Your task to perform on an android device: Clear the cart on ebay.com. Search for "apple airpods" on ebay.com, select the first entry, and add it to the cart. Image 0: 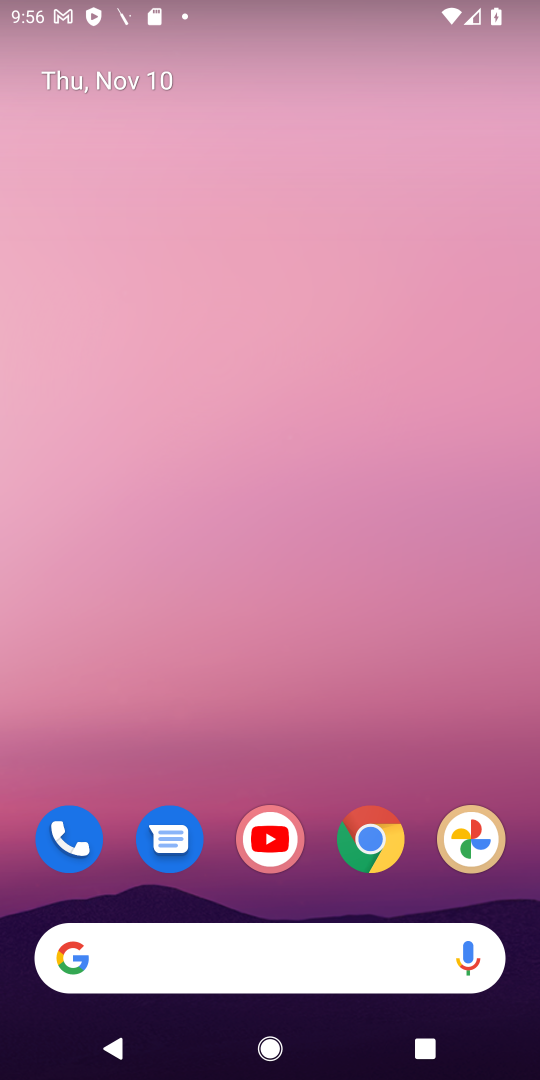
Step 0: click (361, 843)
Your task to perform on an android device: Clear the cart on ebay.com. Search for "apple airpods" on ebay.com, select the first entry, and add it to the cart. Image 1: 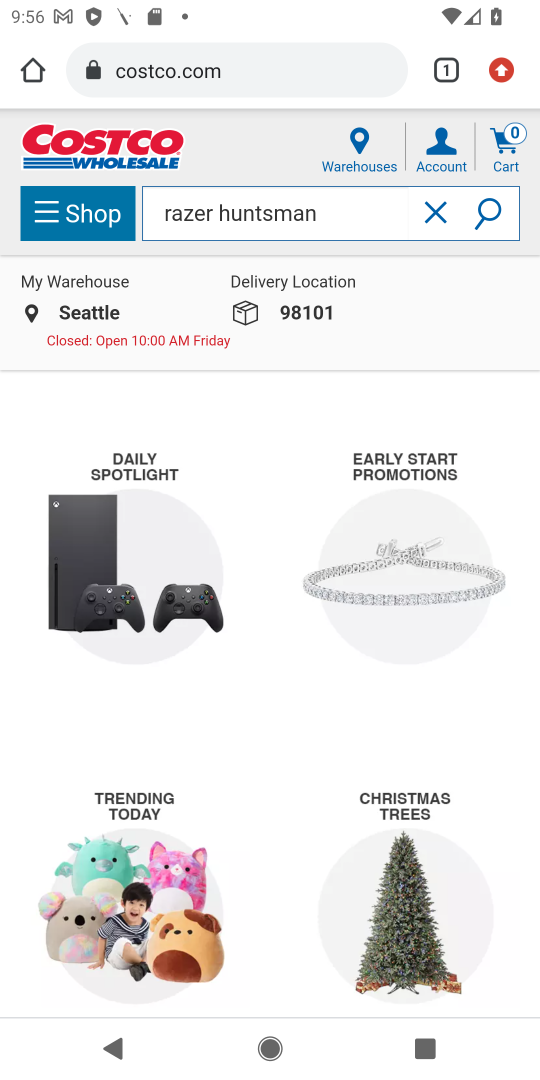
Step 1: click (300, 49)
Your task to perform on an android device: Clear the cart on ebay.com. Search for "apple airpods" on ebay.com, select the first entry, and add it to the cart. Image 2: 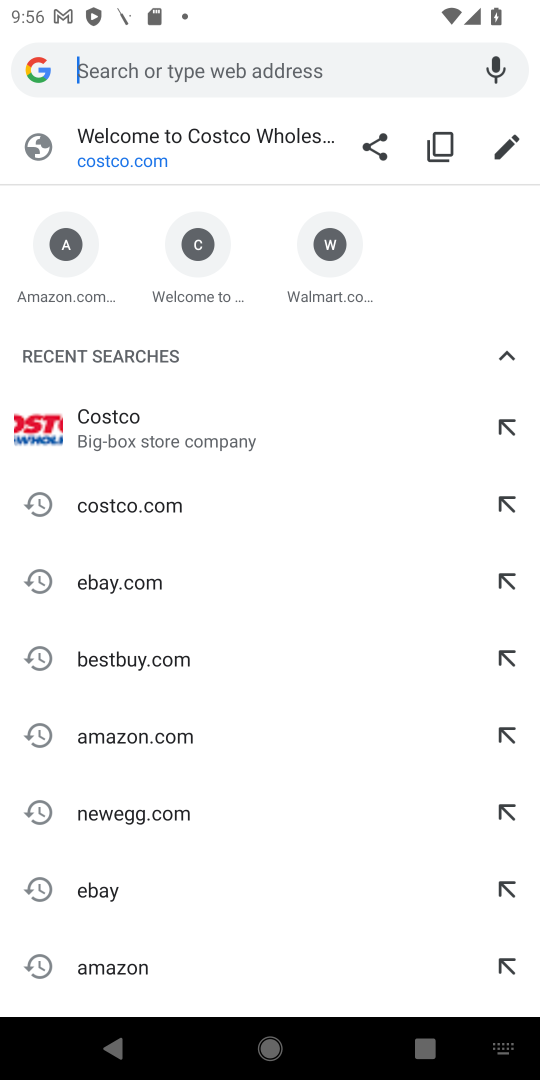
Step 2: type "ebay.com"
Your task to perform on an android device: Clear the cart on ebay.com. Search for "apple airpods" on ebay.com, select the first entry, and add it to the cart. Image 3: 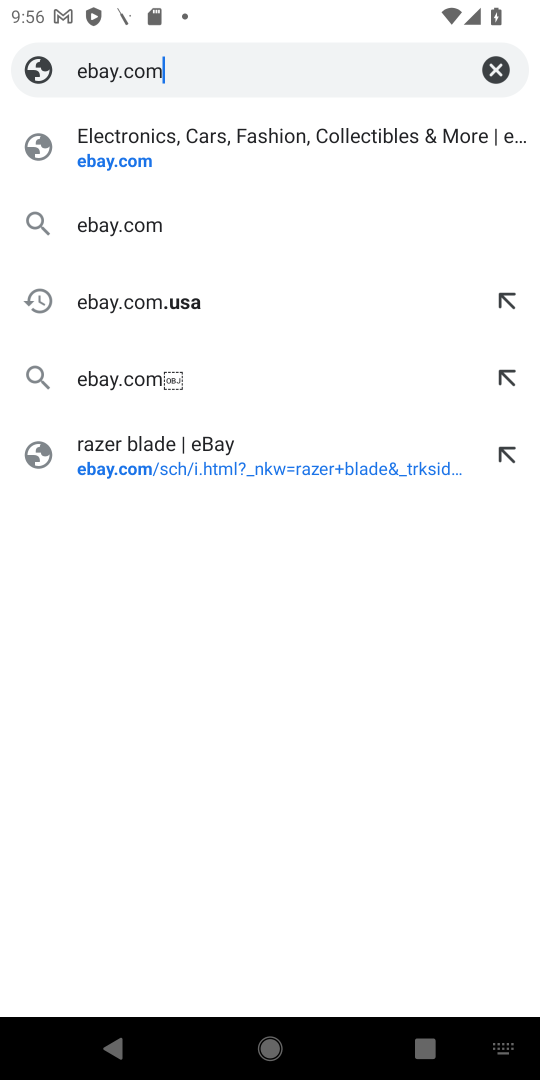
Step 3: click (105, 230)
Your task to perform on an android device: Clear the cart on ebay.com. Search for "apple airpods" on ebay.com, select the first entry, and add it to the cart. Image 4: 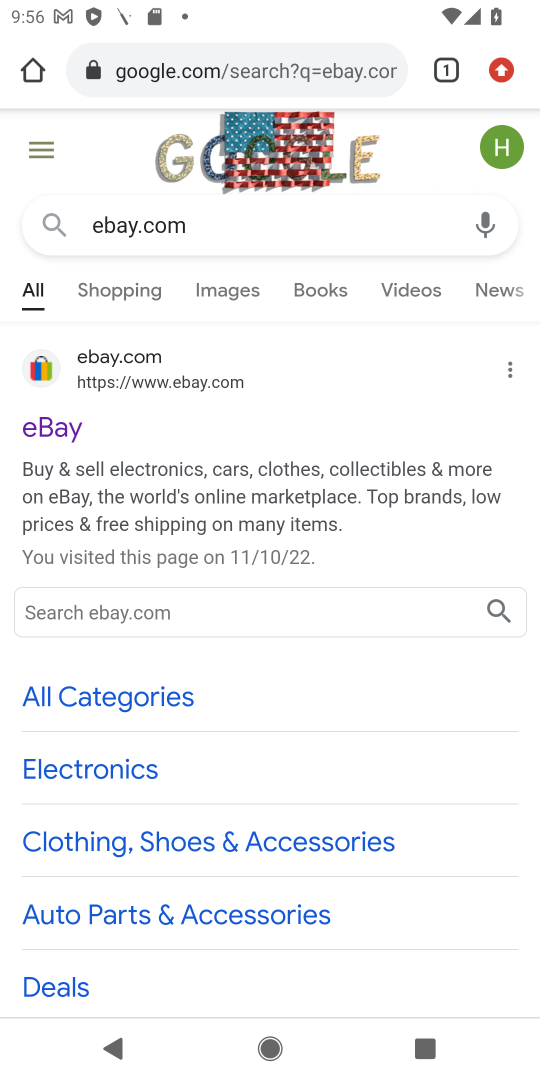
Step 4: click (137, 372)
Your task to perform on an android device: Clear the cart on ebay.com. Search for "apple airpods" on ebay.com, select the first entry, and add it to the cart. Image 5: 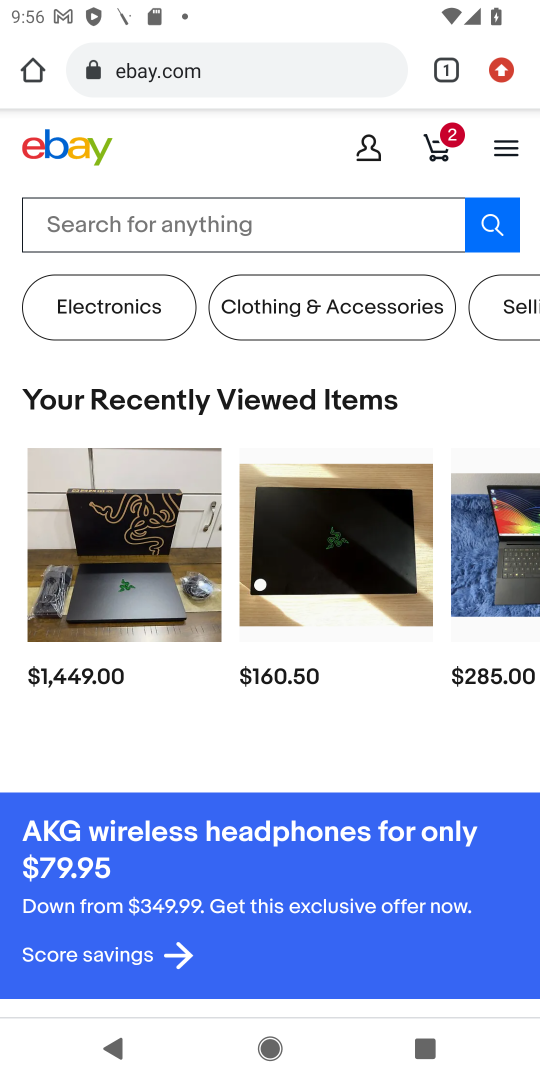
Step 5: click (437, 132)
Your task to perform on an android device: Clear the cart on ebay.com. Search for "apple airpods" on ebay.com, select the first entry, and add it to the cart. Image 6: 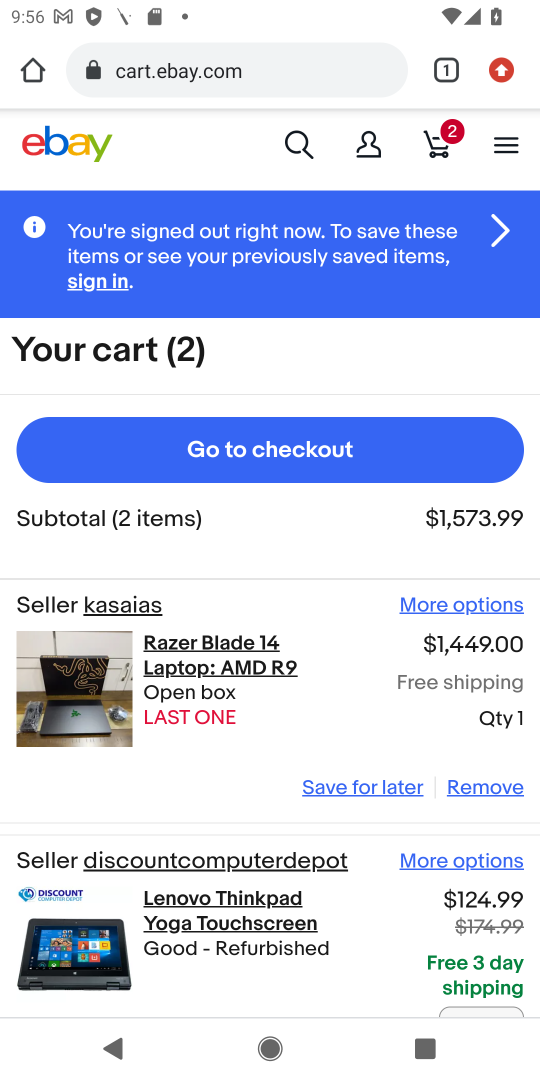
Step 6: click (493, 786)
Your task to perform on an android device: Clear the cart on ebay.com. Search for "apple airpods" on ebay.com, select the first entry, and add it to the cart. Image 7: 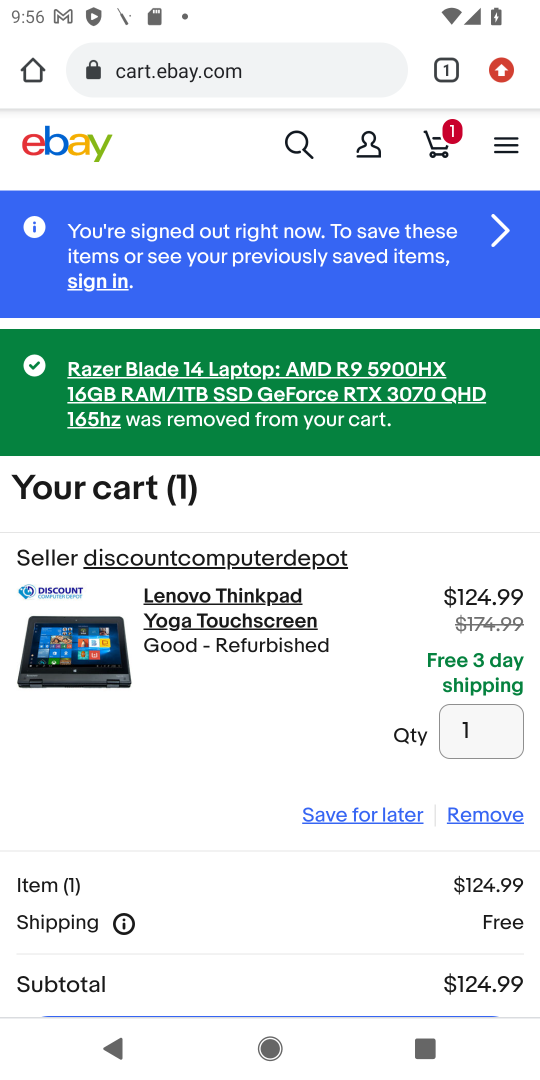
Step 7: click (498, 801)
Your task to perform on an android device: Clear the cart on ebay.com. Search for "apple airpods" on ebay.com, select the first entry, and add it to the cart. Image 8: 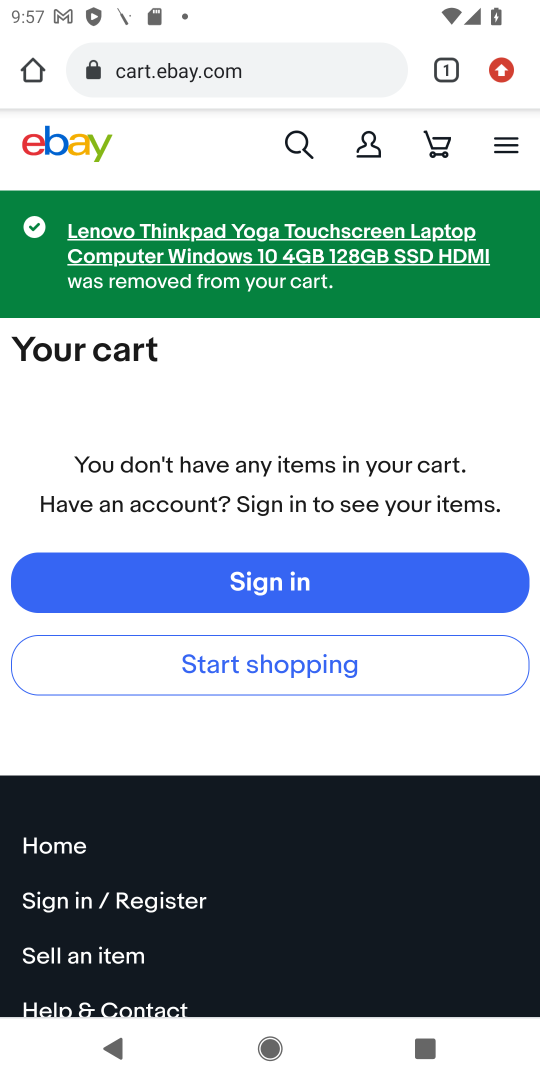
Step 8: click (265, 71)
Your task to perform on an android device: Clear the cart on ebay.com. Search for "apple airpods" on ebay.com, select the first entry, and add it to the cart. Image 9: 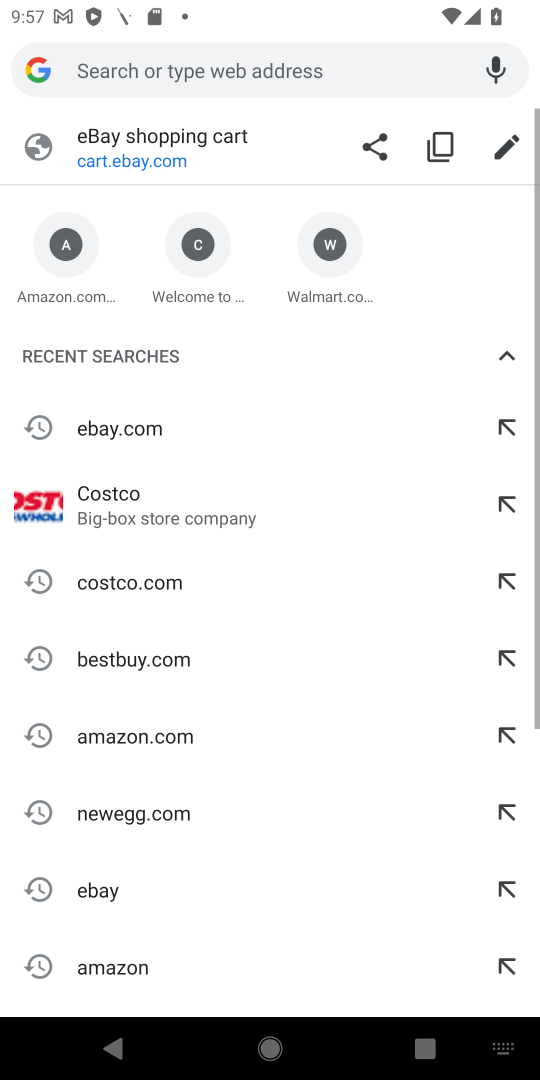
Step 9: press back button
Your task to perform on an android device: Clear the cart on ebay.com. Search for "apple airpods" on ebay.com, select the first entry, and add it to the cart. Image 10: 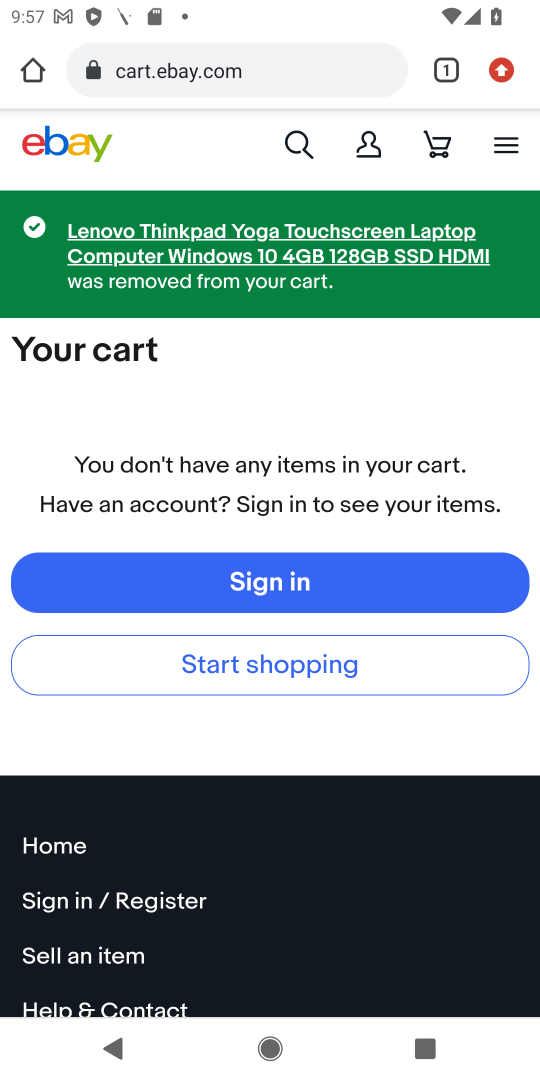
Step 10: click (296, 133)
Your task to perform on an android device: Clear the cart on ebay.com. Search for "apple airpods" on ebay.com, select the first entry, and add it to the cart. Image 11: 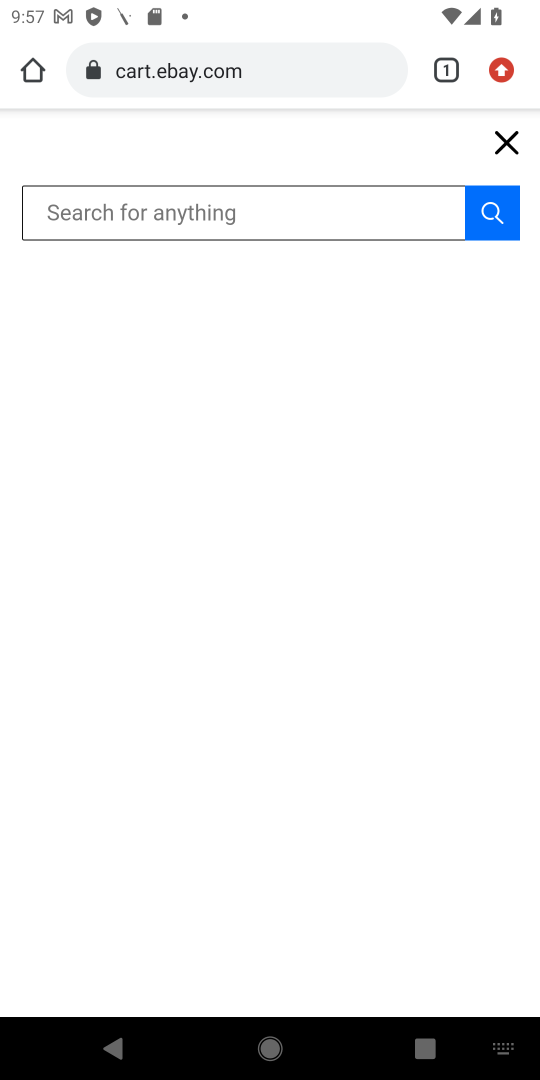
Step 11: type "apple airpods"
Your task to perform on an android device: Clear the cart on ebay.com. Search for "apple airpods" on ebay.com, select the first entry, and add it to the cart. Image 12: 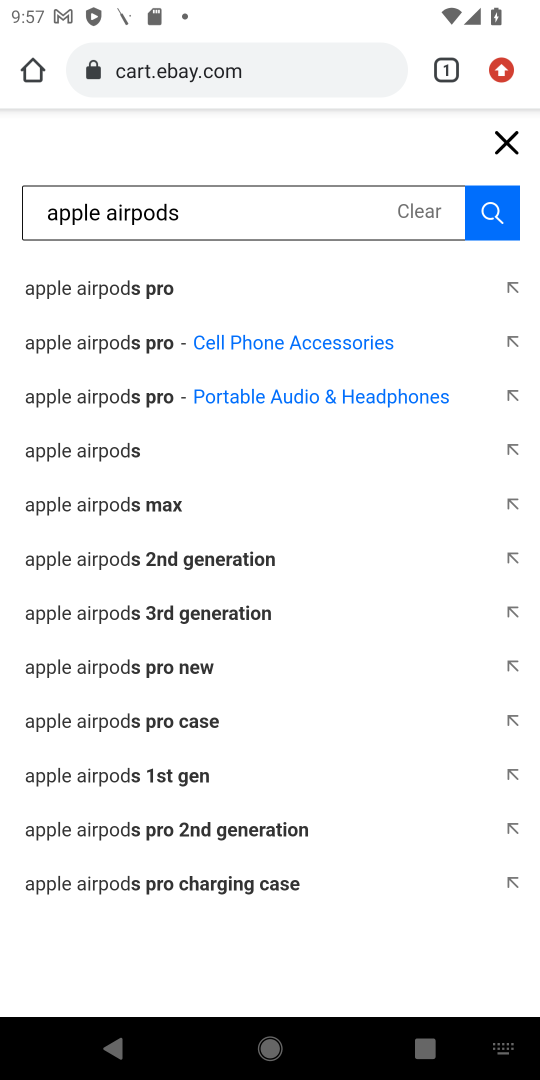
Step 12: click (126, 450)
Your task to perform on an android device: Clear the cart on ebay.com. Search for "apple airpods" on ebay.com, select the first entry, and add it to the cart. Image 13: 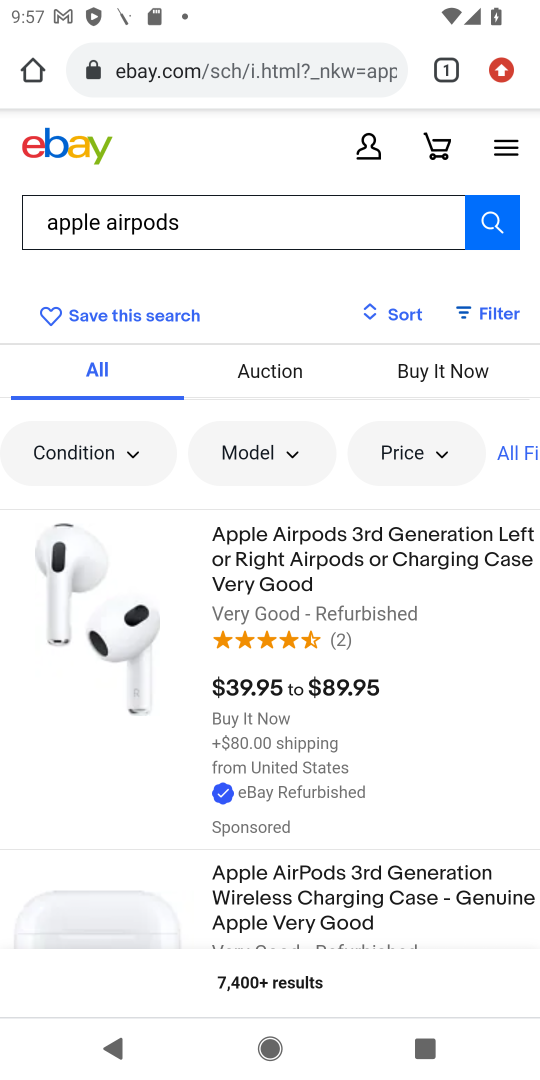
Step 13: drag from (360, 792) to (326, 365)
Your task to perform on an android device: Clear the cart on ebay.com. Search for "apple airpods" on ebay.com, select the first entry, and add it to the cart. Image 14: 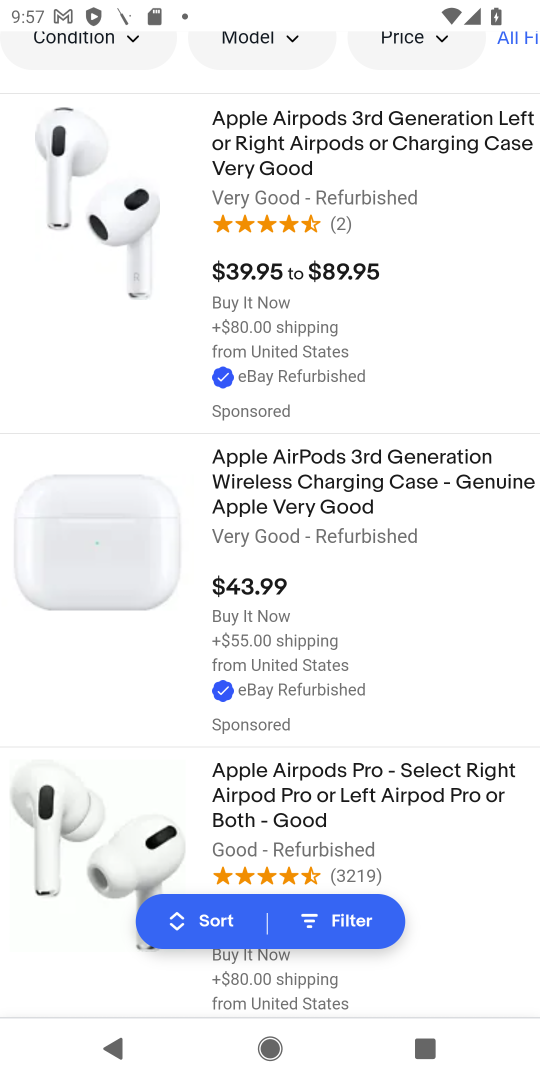
Step 14: drag from (413, 686) to (426, 382)
Your task to perform on an android device: Clear the cart on ebay.com. Search for "apple airpods" on ebay.com, select the first entry, and add it to the cart. Image 15: 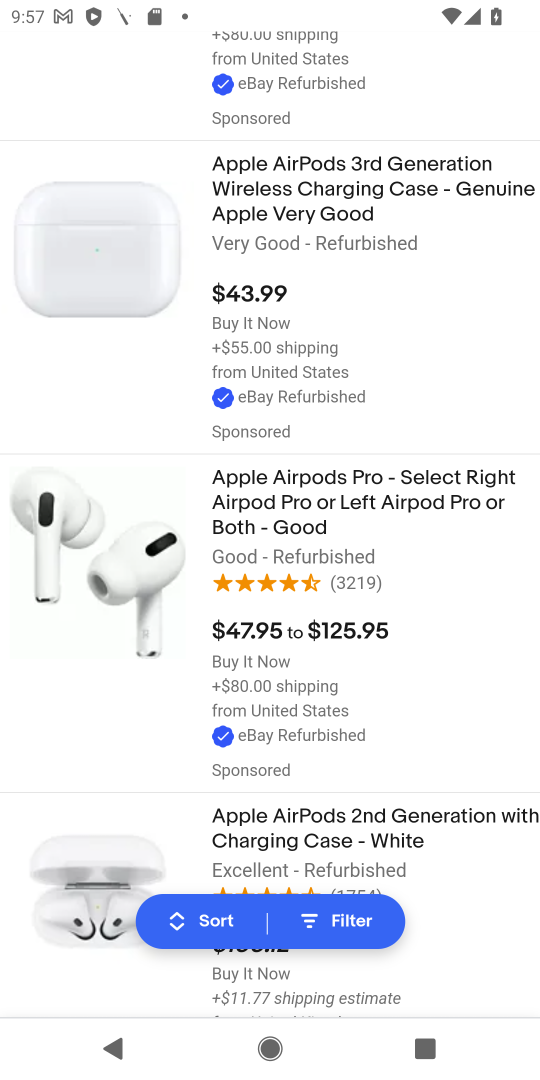
Step 15: drag from (482, 855) to (406, 381)
Your task to perform on an android device: Clear the cart on ebay.com. Search for "apple airpods" on ebay.com, select the first entry, and add it to the cart. Image 16: 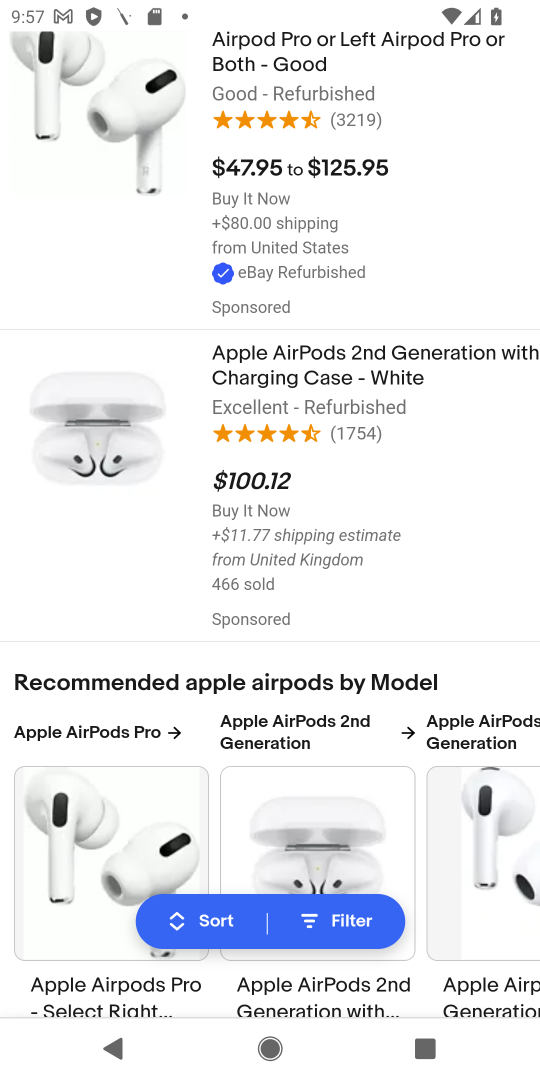
Step 16: click (98, 121)
Your task to perform on an android device: Clear the cart on ebay.com. Search for "apple airpods" on ebay.com, select the first entry, and add it to the cart. Image 17: 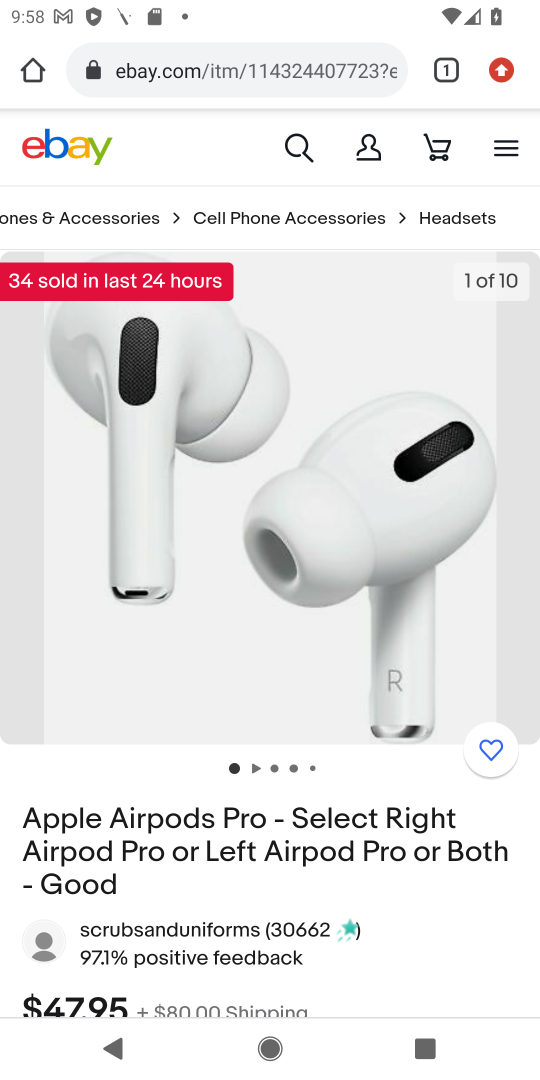
Step 17: drag from (350, 664) to (429, 217)
Your task to perform on an android device: Clear the cart on ebay.com. Search for "apple airpods" on ebay.com, select the first entry, and add it to the cart. Image 18: 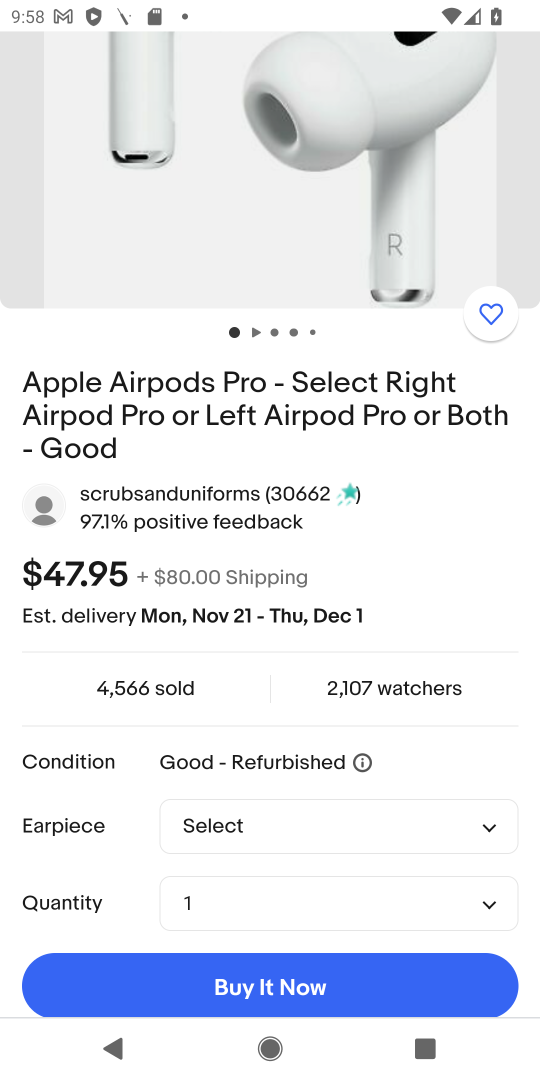
Step 18: drag from (412, 488) to (421, 403)
Your task to perform on an android device: Clear the cart on ebay.com. Search for "apple airpods" on ebay.com, select the first entry, and add it to the cart. Image 19: 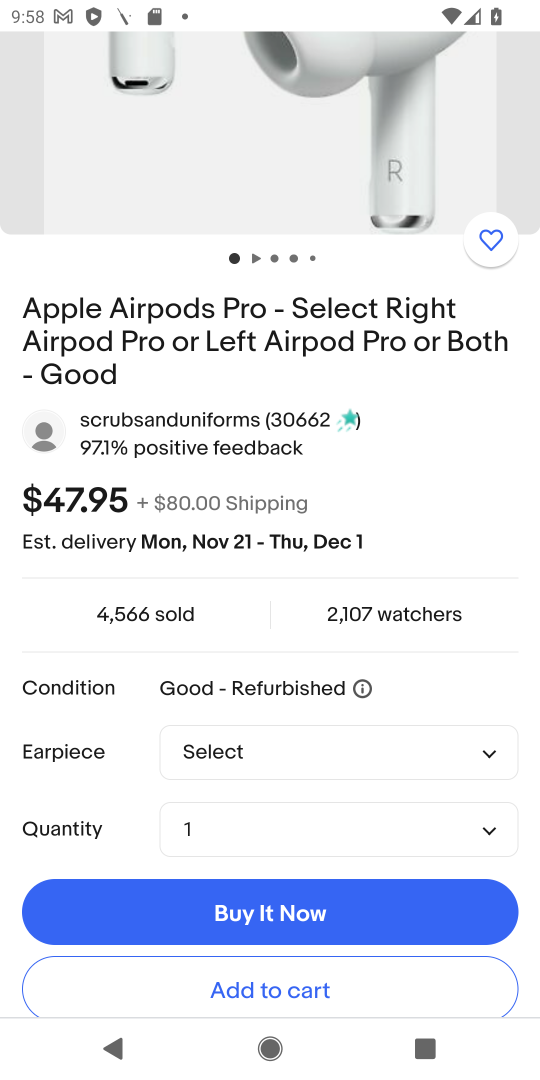
Step 19: click (274, 985)
Your task to perform on an android device: Clear the cart on ebay.com. Search for "apple airpods" on ebay.com, select the first entry, and add it to the cart. Image 20: 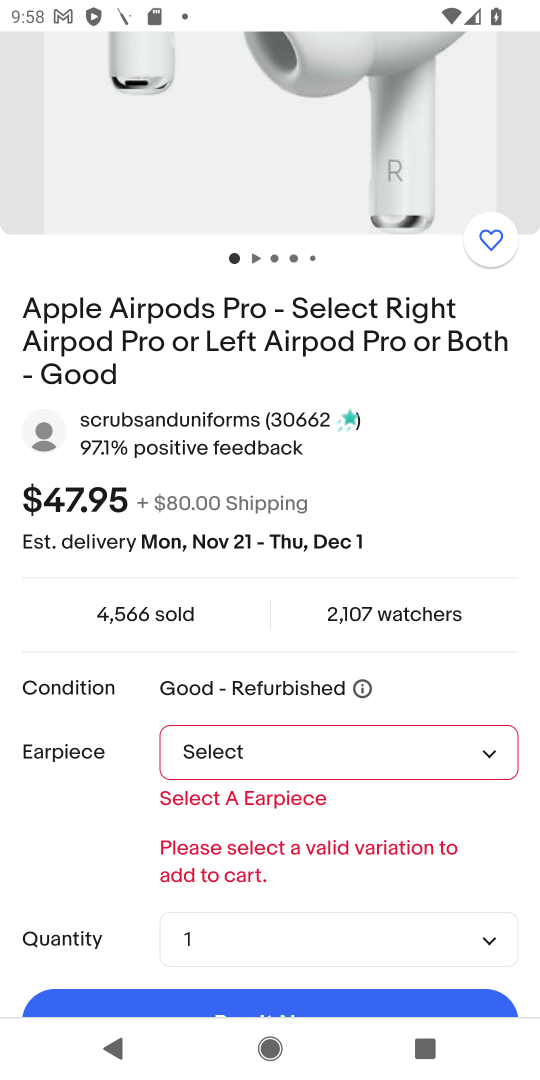
Step 20: press back button
Your task to perform on an android device: Clear the cart on ebay.com. Search for "apple airpods" on ebay.com, select the first entry, and add it to the cart. Image 21: 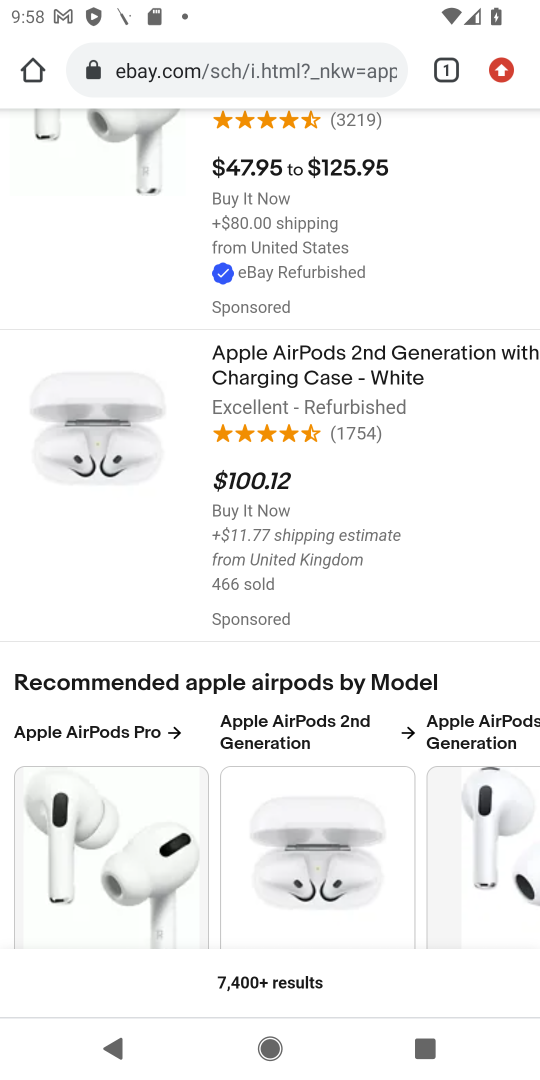
Step 21: drag from (401, 242) to (406, 736)
Your task to perform on an android device: Clear the cart on ebay.com. Search for "apple airpods" on ebay.com, select the first entry, and add it to the cart. Image 22: 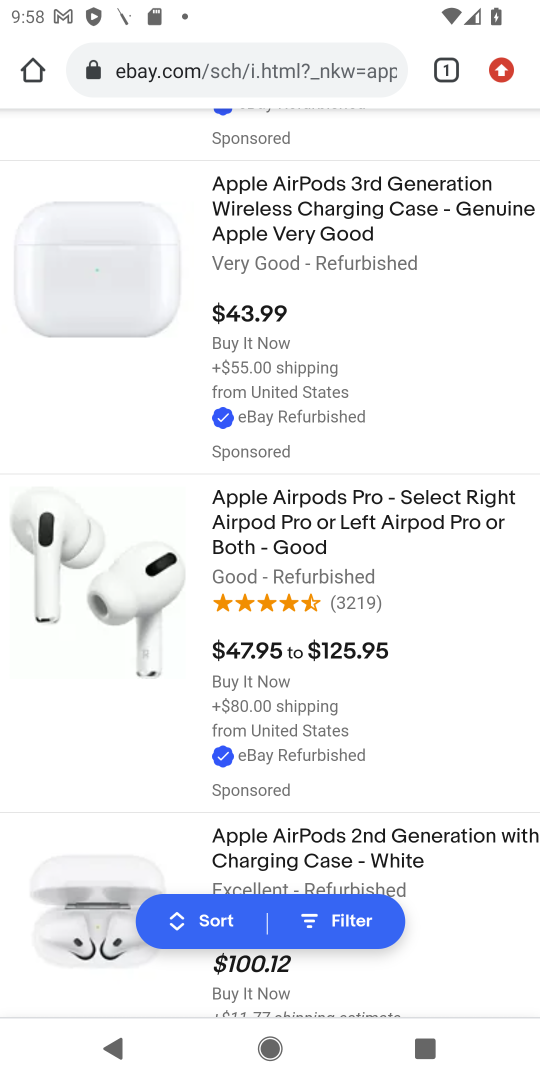
Step 22: click (114, 594)
Your task to perform on an android device: Clear the cart on ebay.com. Search for "apple airpods" on ebay.com, select the first entry, and add it to the cart. Image 23: 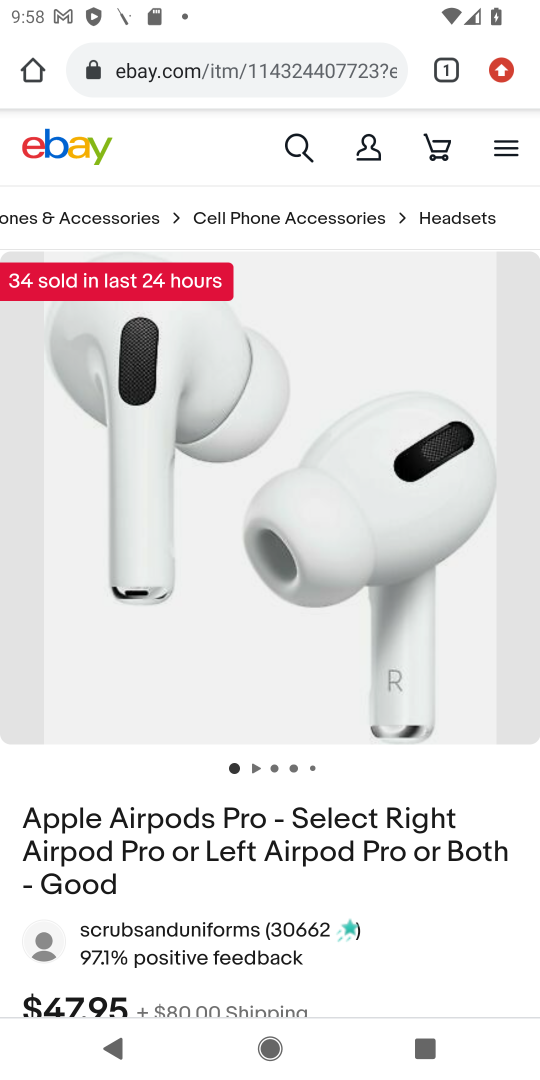
Step 23: drag from (376, 852) to (444, 349)
Your task to perform on an android device: Clear the cart on ebay.com. Search for "apple airpods" on ebay.com, select the first entry, and add it to the cart. Image 24: 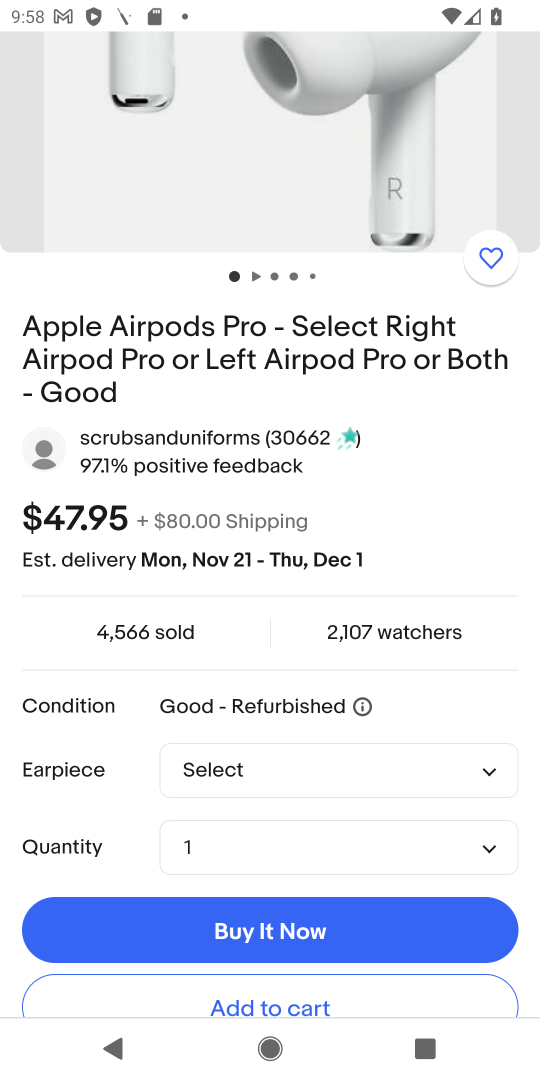
Step 24: drag from (363, 934) to (476, 455)
Your task to perform on an android device: Clear the cart on ebay.com. Search for "apple airpods" on ebay.com, select the first entry, and add it to the cart. Image 25: 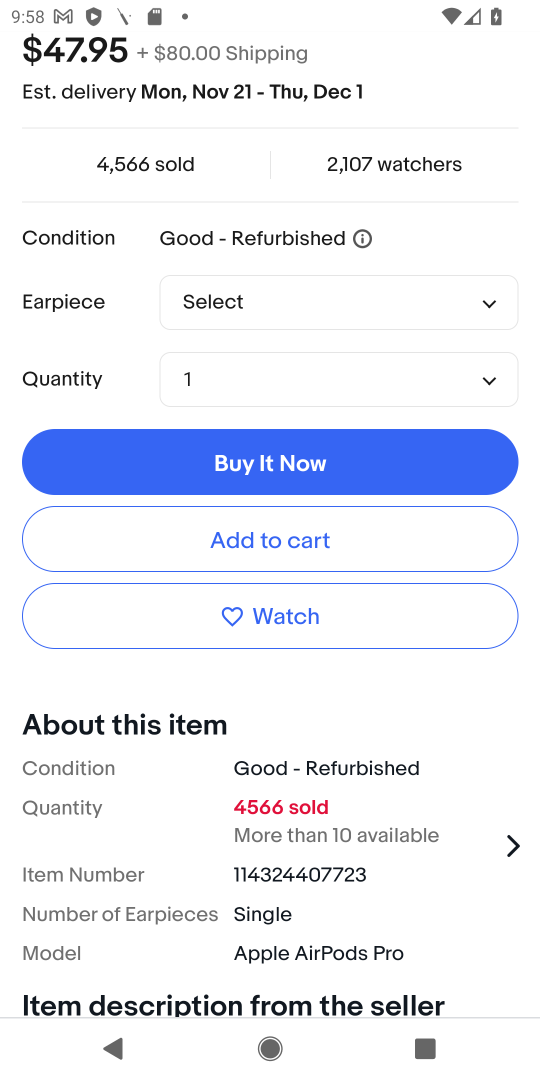
Step 25: click (309, 534)
Your task to perform on an android device: Clear the cart on ebay.com. Search for "apple airpods" on ebay.com, select the first entry, and add it to the cart. Image 26: 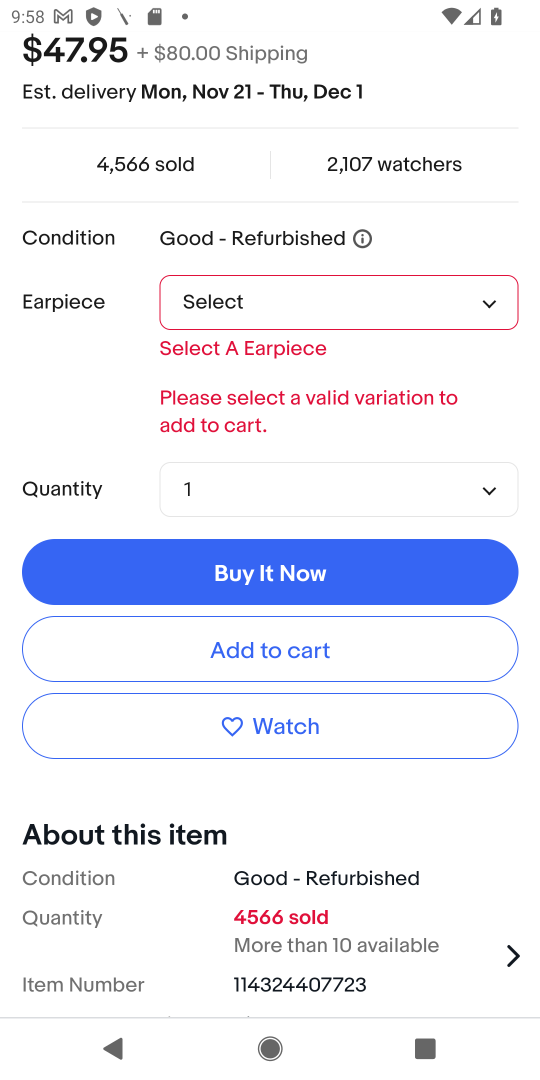
Step 26: press back button
Your task to perform on an android device: Clear the cart on ebay.com. Search for "apple airpods" on ebay.com, select the first entry, and add it to the cart. Image 27: 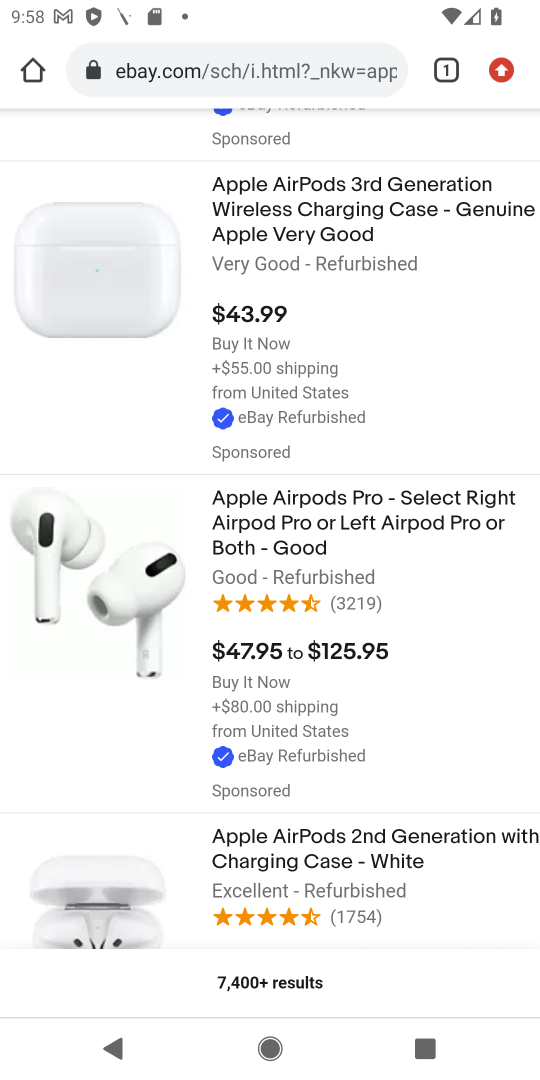
Step 27: drag from (433, 734) to (505, 272)
Your task to perform on an android device: Clear the cart on ebay.com. Search for "apple airpods" on ebay.com, select the first entry, and add it to the cart. Image 28: 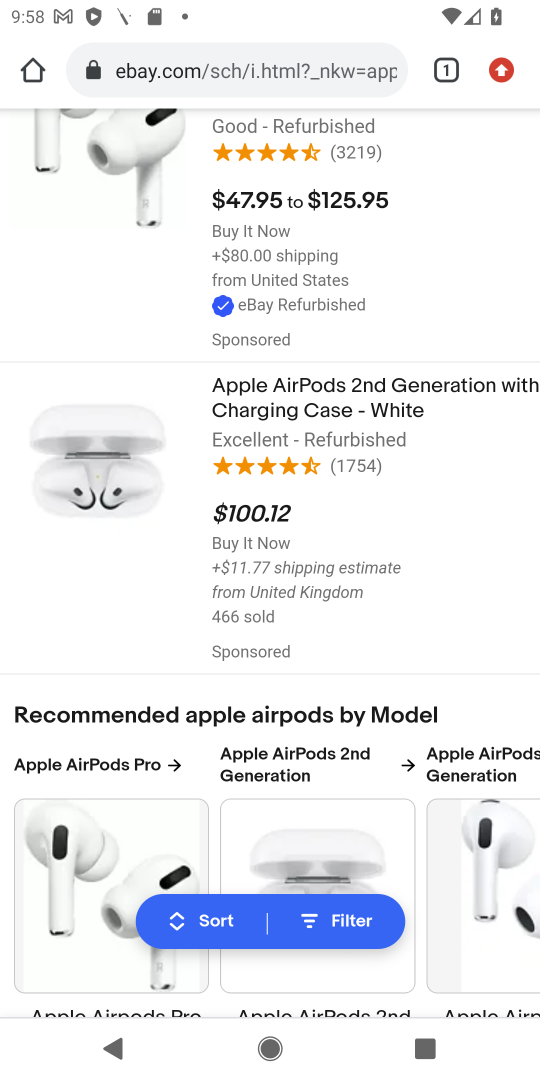
Step 28: drag from (405, 721) to (537, 306)
Your task to perform on an android device: Clear the cart on ebay.com. Search for "apple airpods" on ebay.com, select the first entry, and add it to the cart. Image 29: 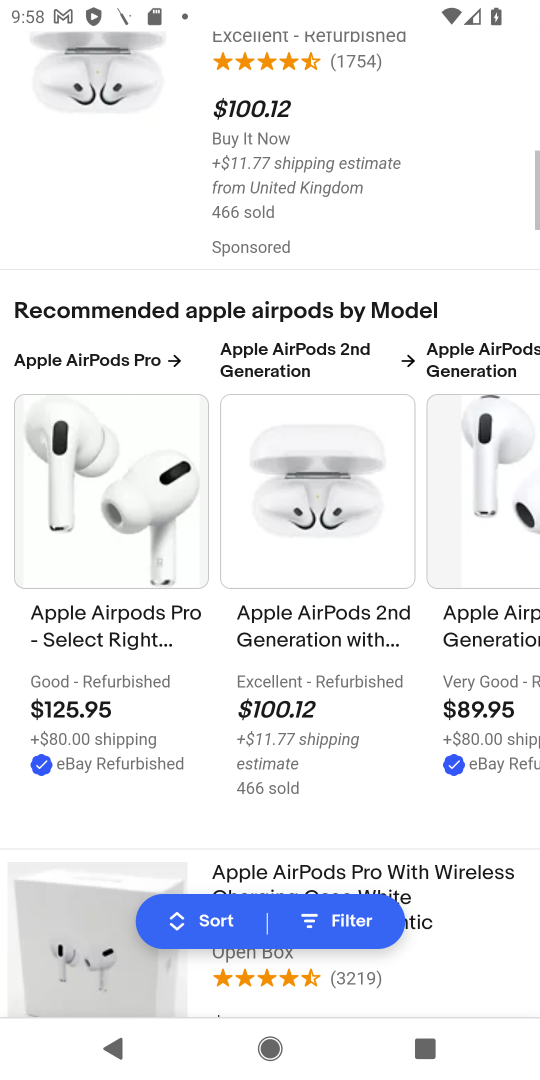
Step 29: drag from (362, 666) to (458, 288)
Your task to perform on an android device: Clear the cart on ebay.com. Search for "apple airpods" on ebay.com, select the first entry, and add it to the cart. Image 30: 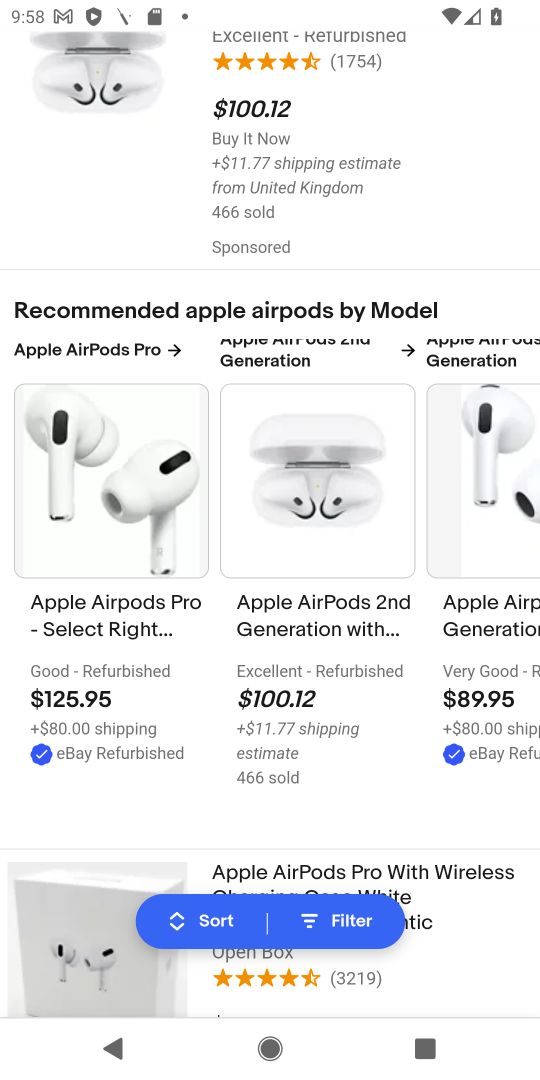
Step 30: drag from (266, 715) to (405, 336)
Your task to perform on an android device: Clear the cart on ebay.com. Search for "apple airpods" on ebay.com, select the first entry, and add it to the cart. Image 31: 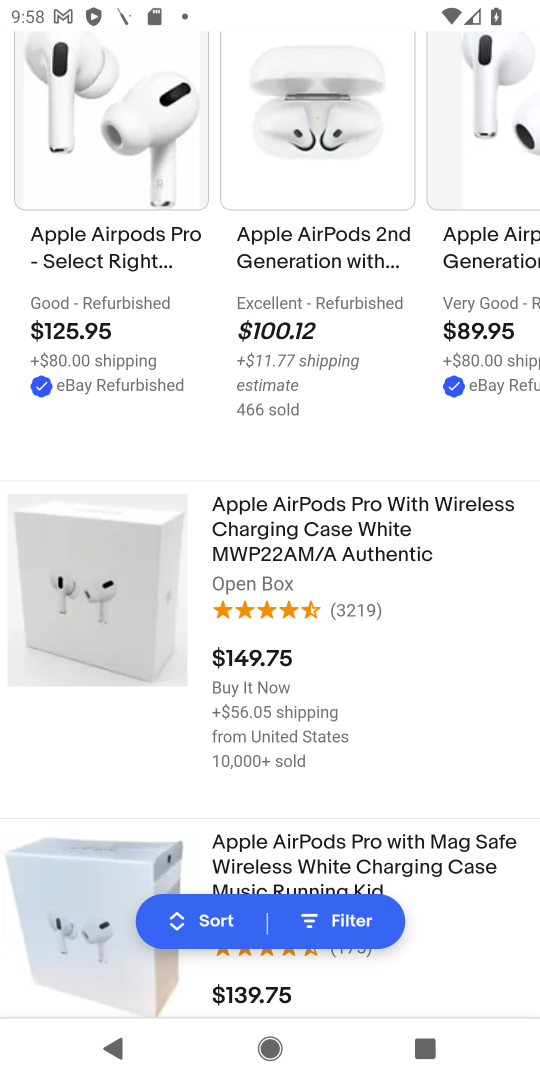
Step 31: click (124, 604)
Your task to perform on an android device: Clear the cart on ebay.com. Search for "apple airpods" on ebay.com, select the first entry, and add it to the cart. Image 32: 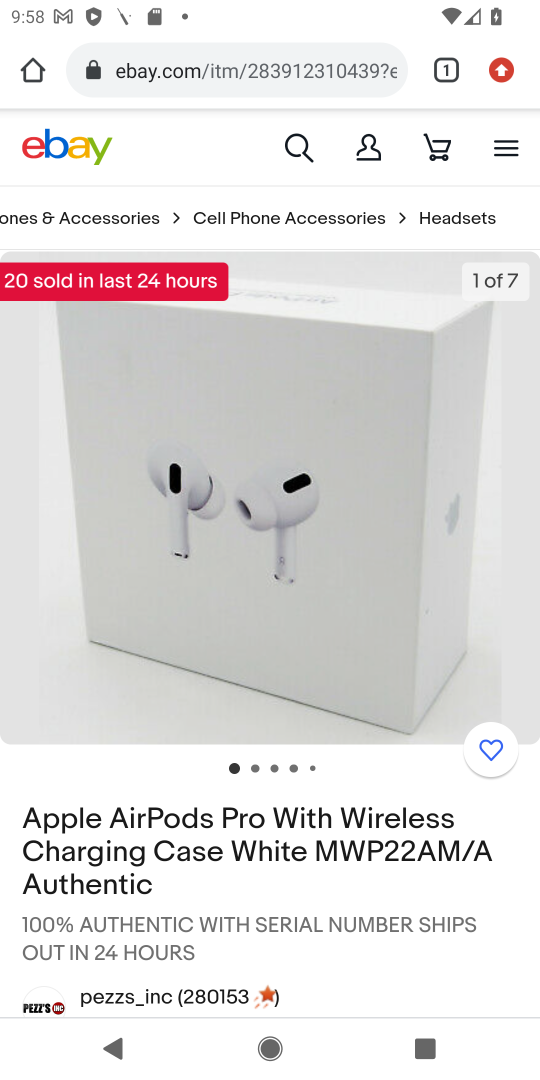
Step 32: drag from (399, 867) to (465, 294)
Your task to perform on an android device: Clear the cart on ebay.com. Search for "apple airpods" on ebay.com, select the first entry, and add it to the cart. Image 33: 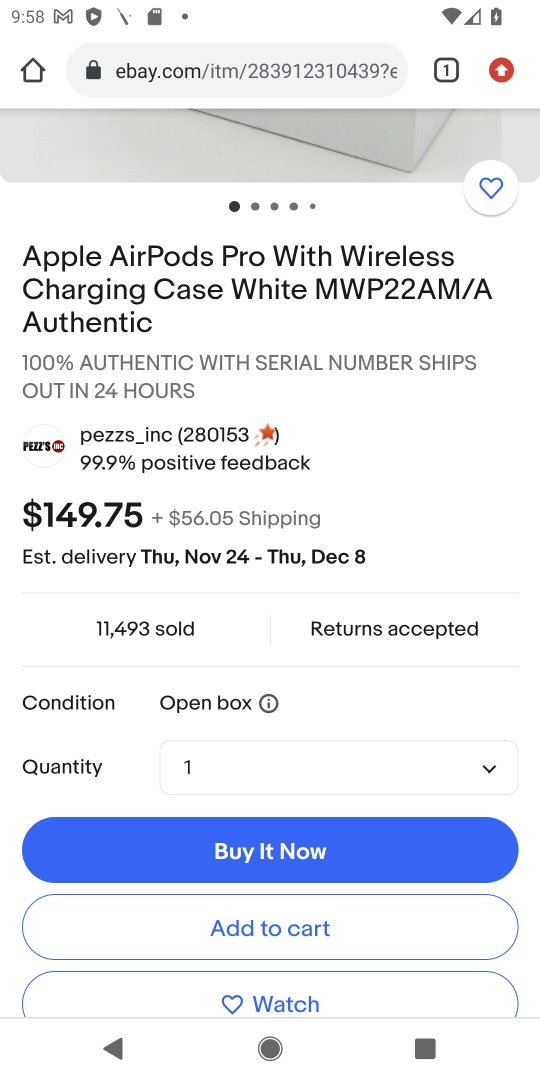
Step 33: click (294, 924)
Your task to perform on an android device: Clear the cart on ebay.com. Search for "apple airpods" on ebay.com, select the first entry, and add it to the cart. Image 34: 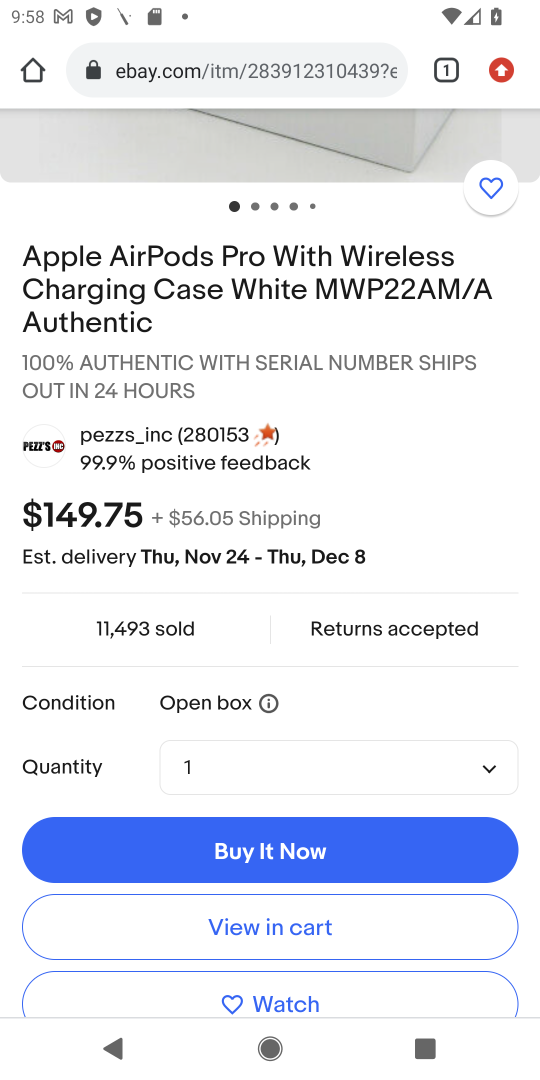
Step 34: click (294, 924)
Your task to perform on an android device: Clear the cart on ebay.com. Search for "apple airpods" on ebay.com, select the first entry, and add it to the cart. Image 35: 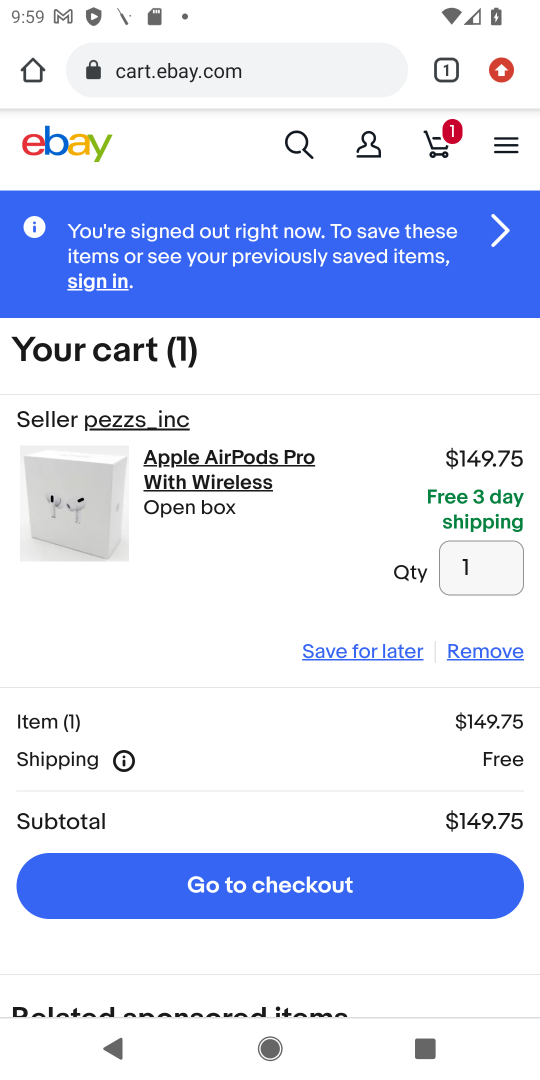
Step 35: task complete